Your task to perform on an android device: Turn off the flashlight Image 0: 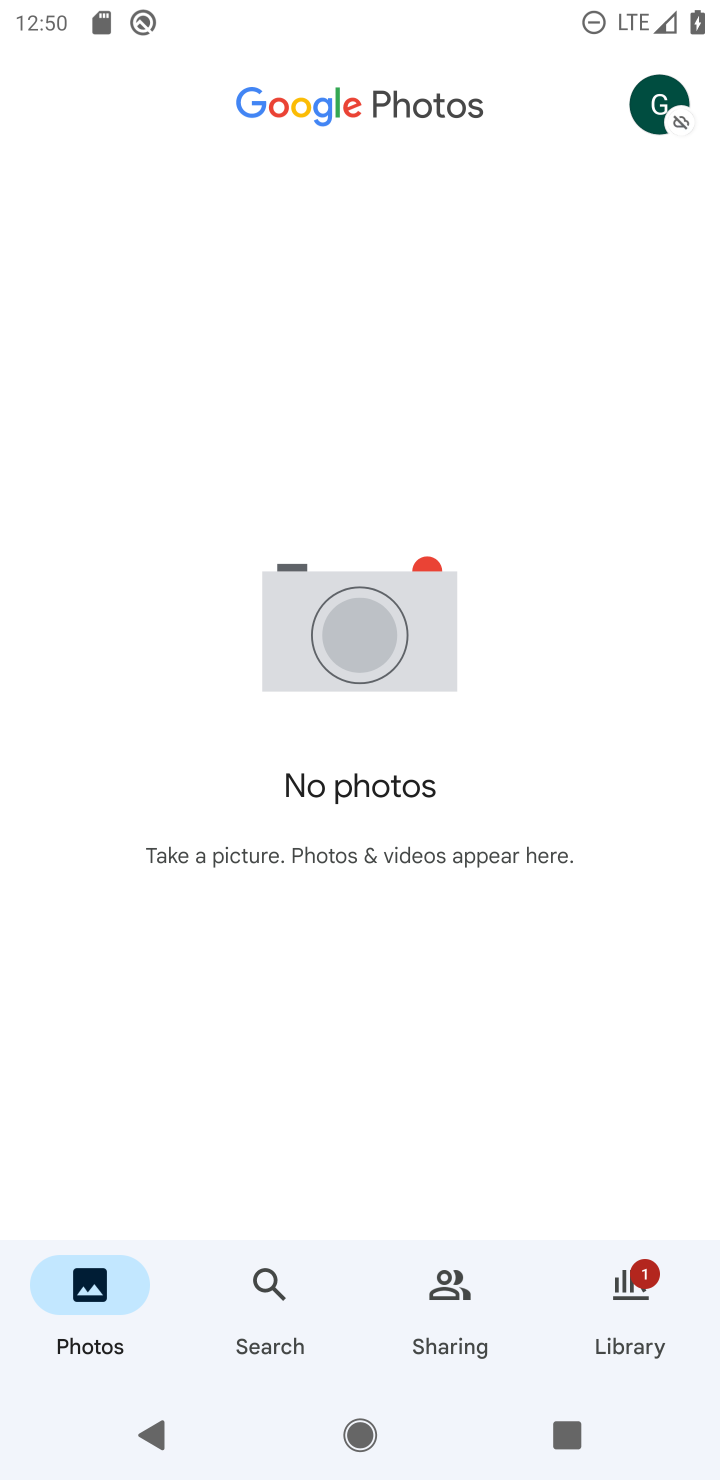
Step 0: press home button
Your task to perform on an android device: Turn off the flashlight Image 1: 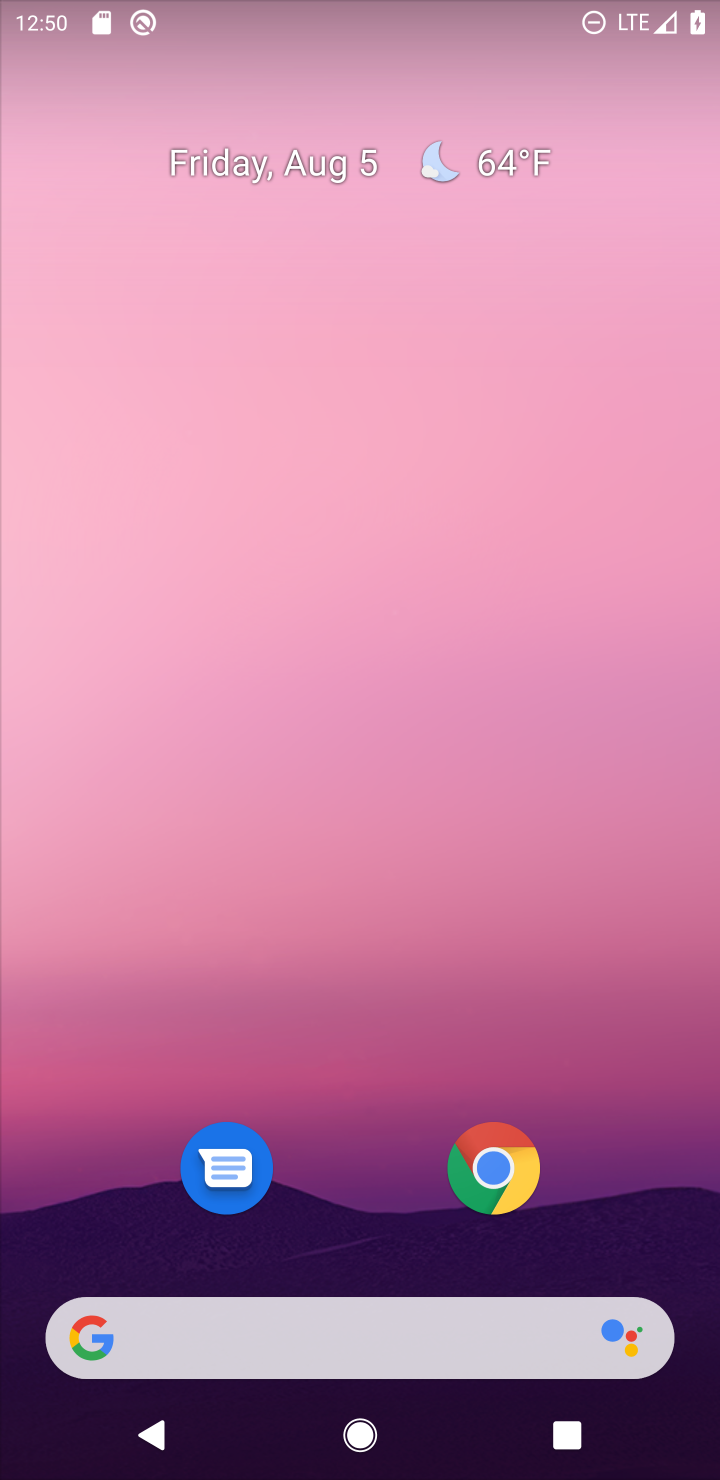
Step 1: drag from (658, 1186) to (340, 83)
Your task to perform on an android device: Turn off the flashlight Image 2: 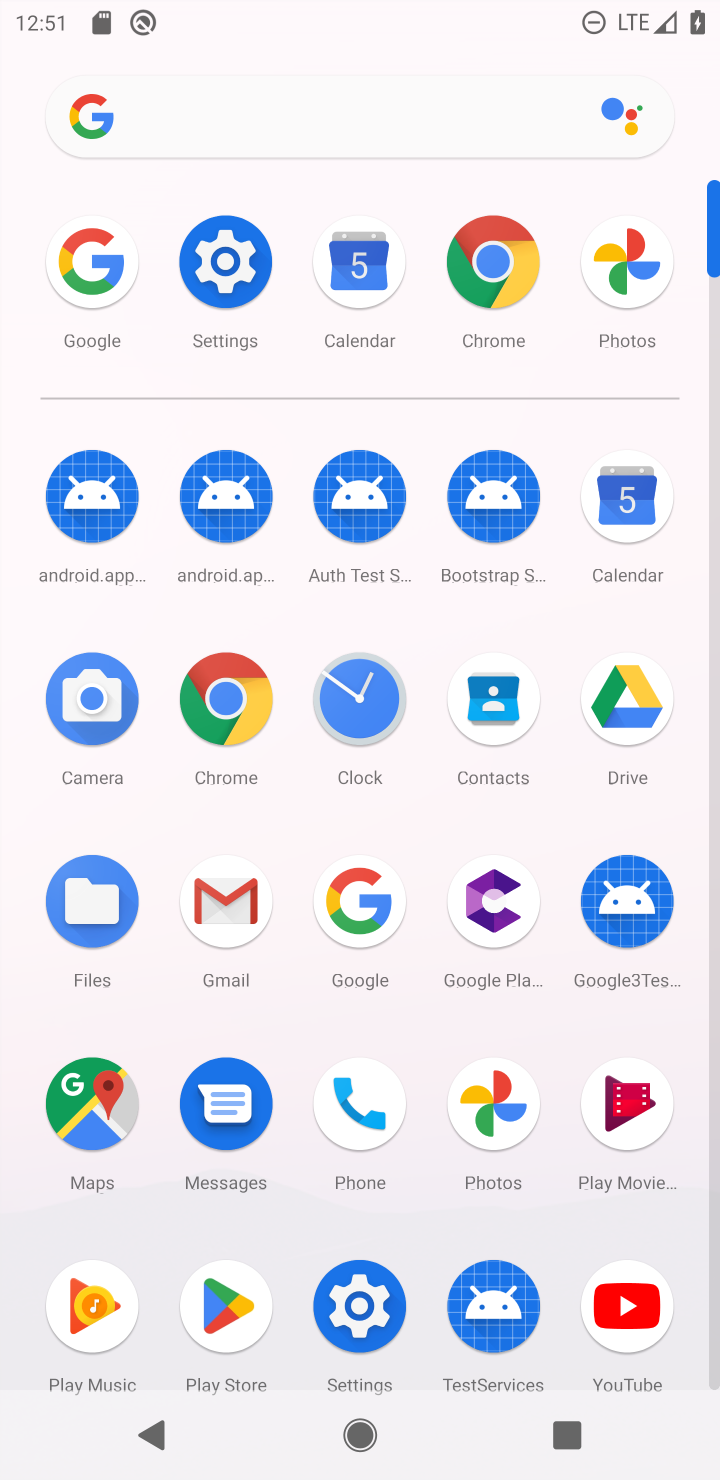
Step 2: click (348, 1333)
Your task to perform on an android device: Turn off the flashlight Image 3: 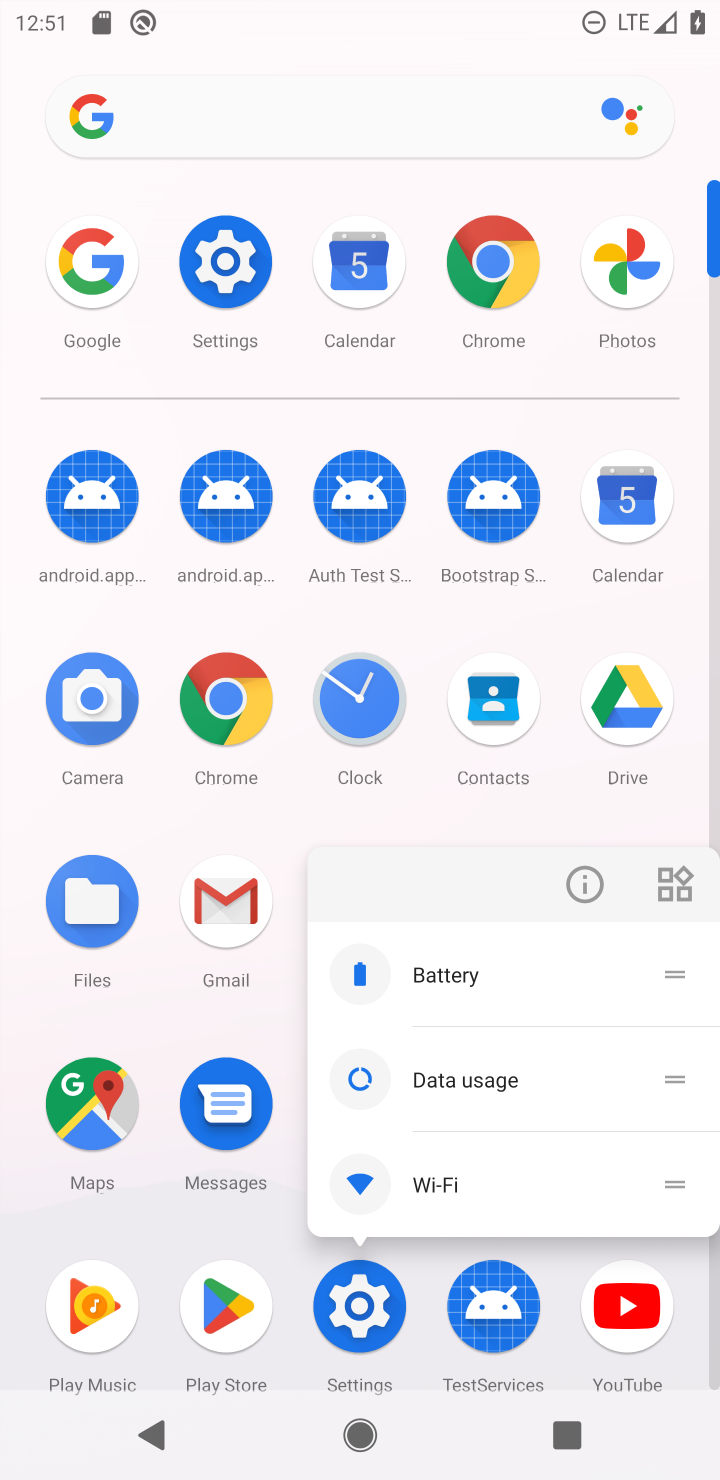
Step 3: task complete